Your task to perform on an android device: add a contact Image 0: 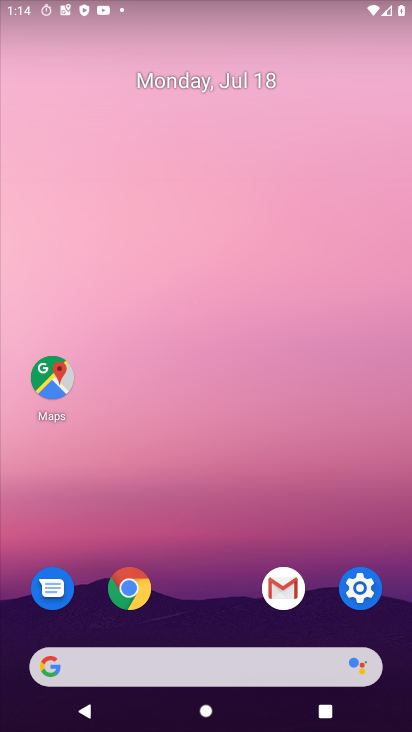
Step 0: drag from (307, 489) to (329, 127)
Your task to perform on an android device: add a contact Image 1: 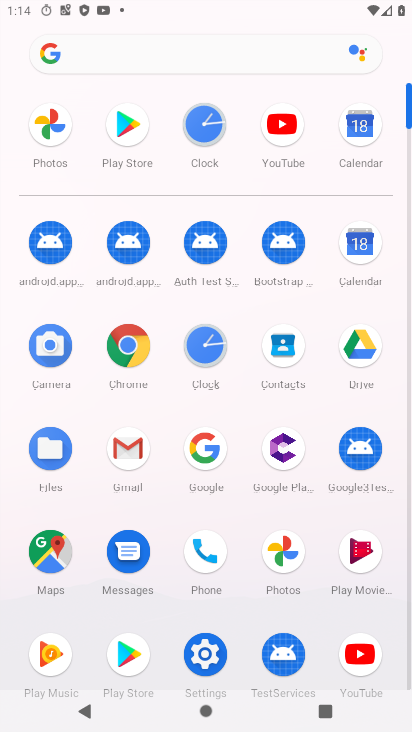
Step 1: click (211, 564)
Your task to perform on an android device: add a contact Image 2: 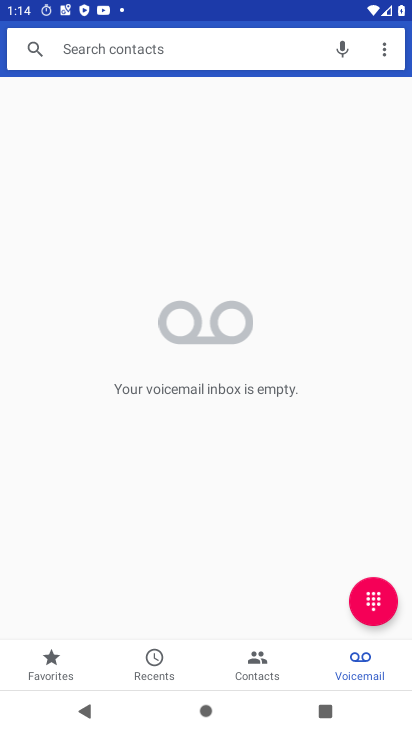
Step 2: click (246, 678)
Your task to perform on an android device: add a contact Image 3: 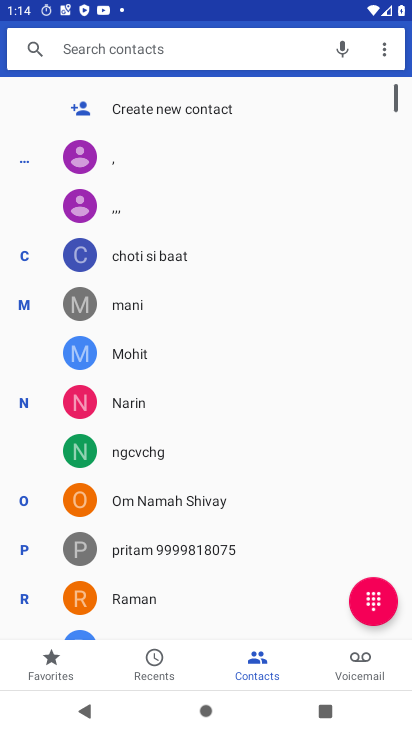
Step 3: click (147, 120)
Your task to perform on an android device: add a contact Image 4: 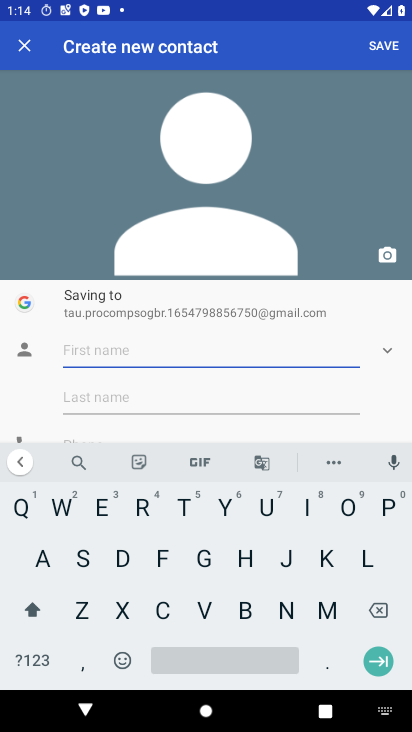
Step 4: click (182, 525)
Your task to perform on an android device: add a contact Image 5: 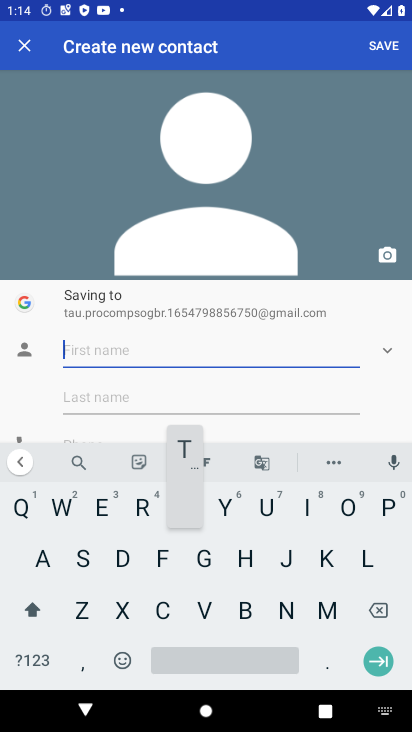
Step 5: click (158, 551)
Your task to perform on an android device: add a contact Image 6: 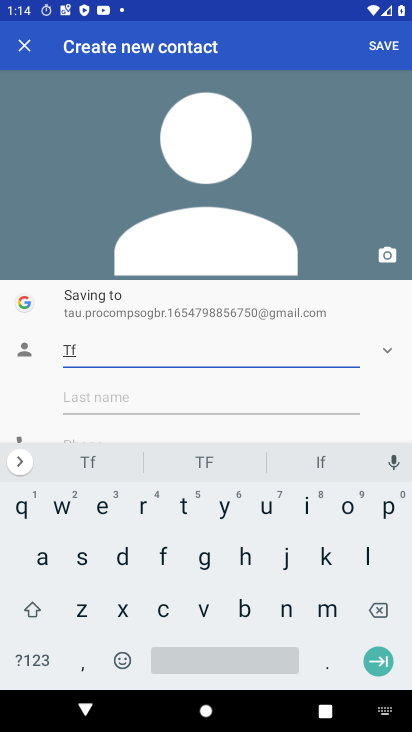
Step 6: click (123, 422)
Your task to perform on an android device: add a contact Image 7: 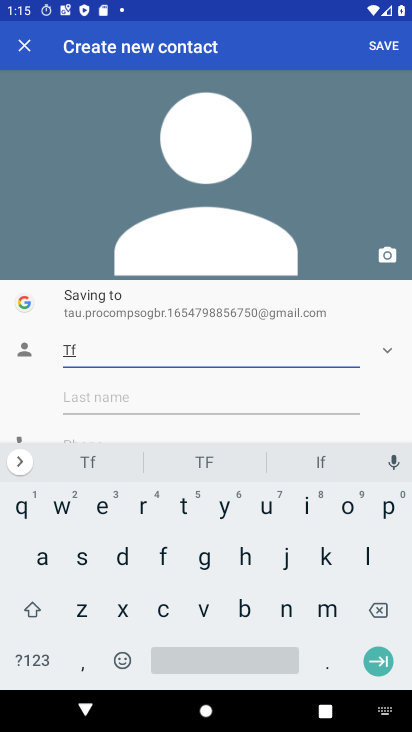
Step 7: click (98, 428)
Your task to perform on an android device: add a contact Image 8: 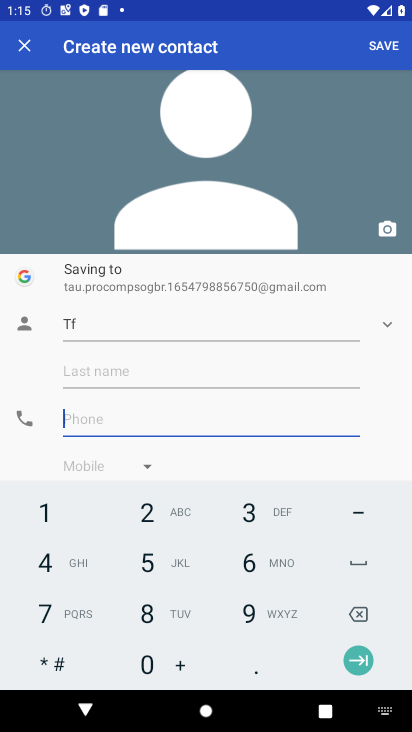
Step 8: click (112, 531)
Your task to perform on an android device: add a contact Image 9: 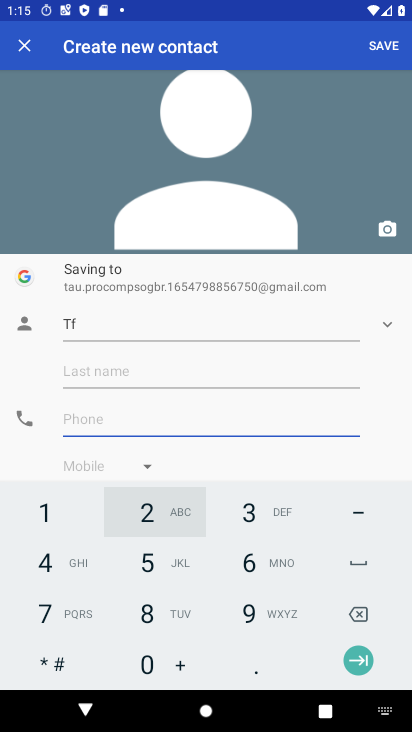
Step 9: click (73, 609)
Your task to perform on an android device: add a contact Image 10: 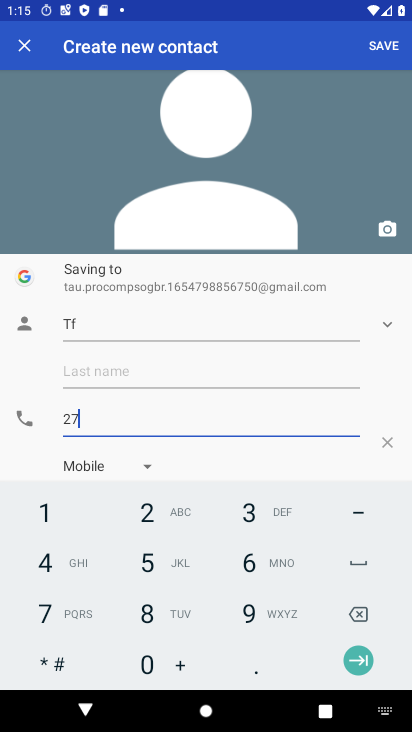
Step 10: click (59, 564)
Your task to perform on an android device: add a contact Image 11: 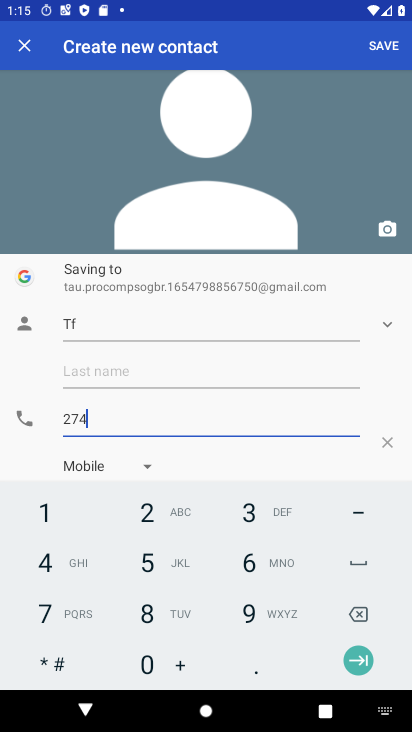
Step 11: click (147, 571)
Your task to perform on an android device: add a contact Image 12: 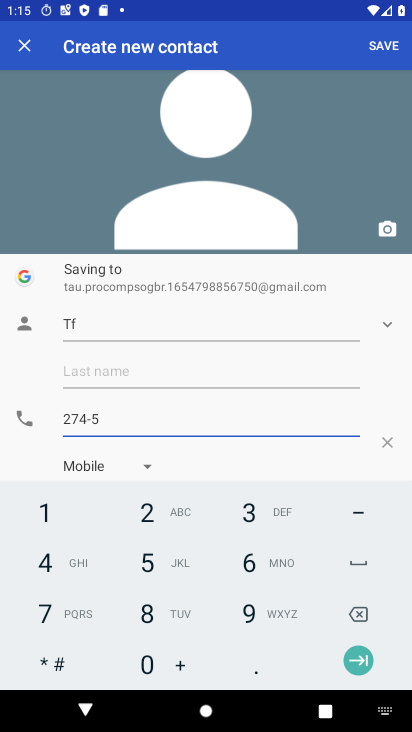
Step 12: click (384, 48)
Your task to perform on an android device: add a contact Image 13: 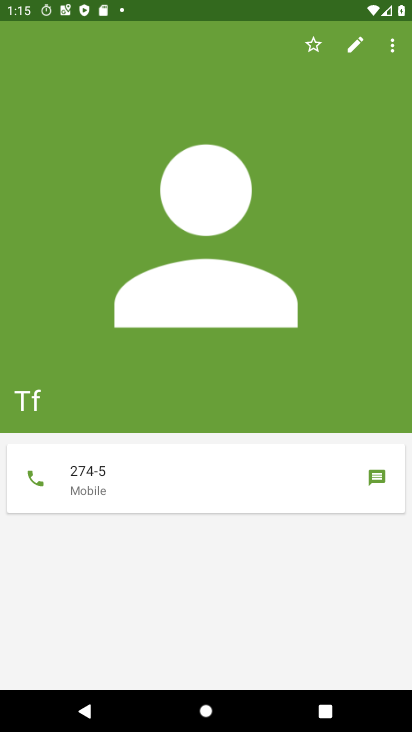
Step 13: task complete